Your task to perform on an android device: check out phone information Image 0: 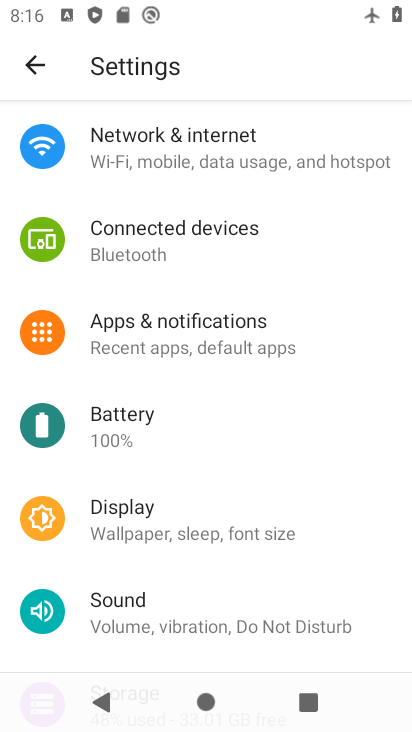
Step 0: press home button
Your task to perform on an android device: check out phone information Image 1: 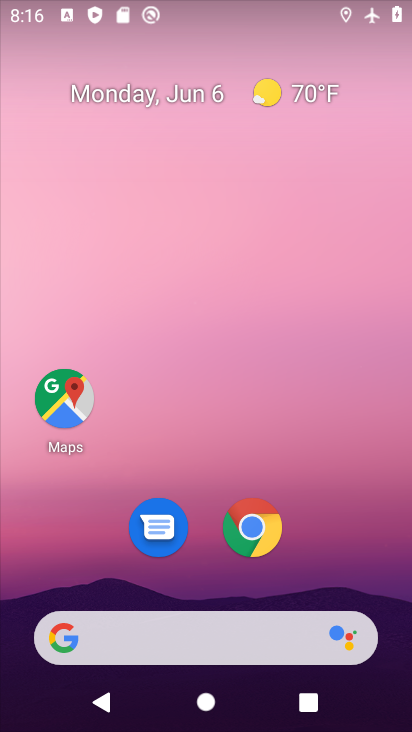
Step 1: drag from (212, 587) to (217, 199)
Your task to perform on an android device: check out phone information Image 2: 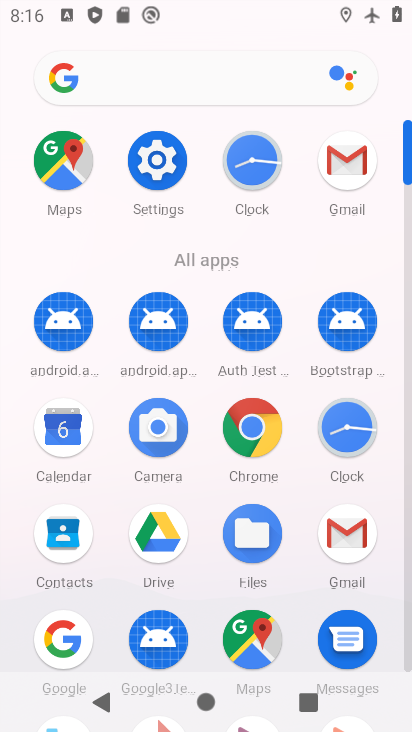
Step 2: click (165, 176)
Your task to perform on an android device: check out phone information Image 3: 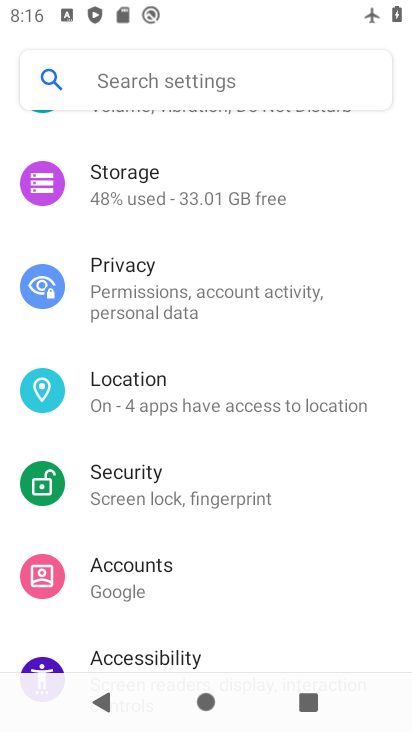
Step 3: drag from (184, 529) to (177, 175)
Your task to perform on an android device: check out phone information Image 4: 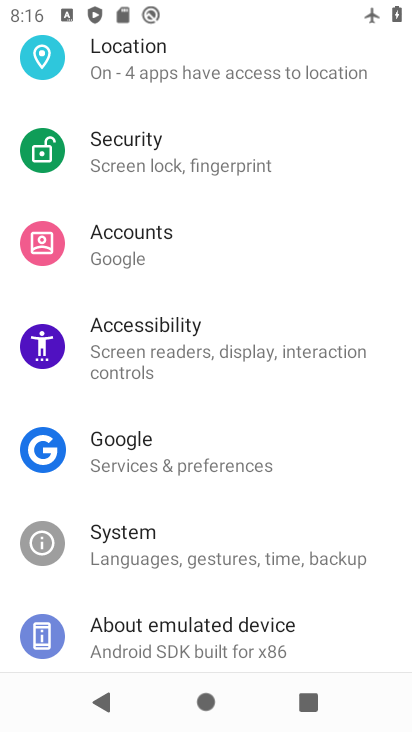
Step 4: drag from (156, 506) to (165, 179)
Your task to perform on an android device: check out phone information Image 5: 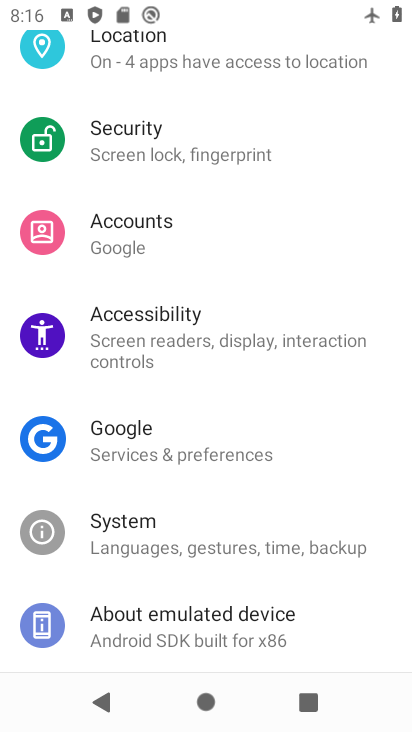
Step 5: drag from (144, 521) to (167, 173)
Your task to perform on an android device: check out phone information Image 6: 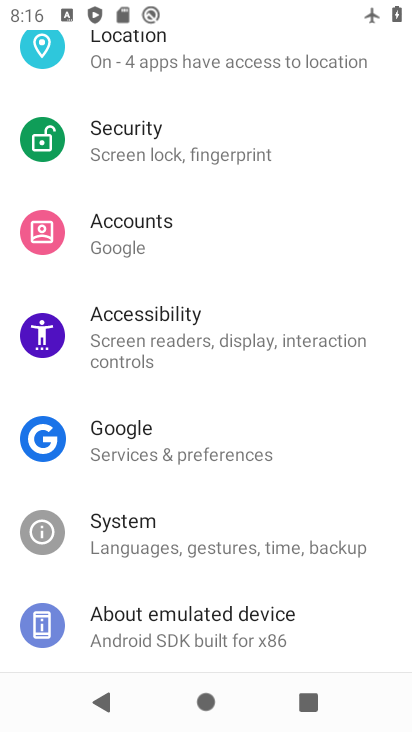
Step 6: click (178, 614)
Your task to perform on an android device: check out phone information Image 7: 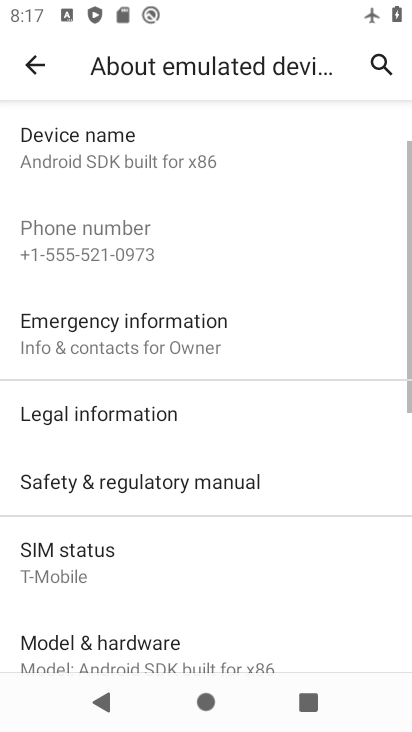
Step 7: task complete